Your task to perform on an android device: Go to internet settings Image 0: 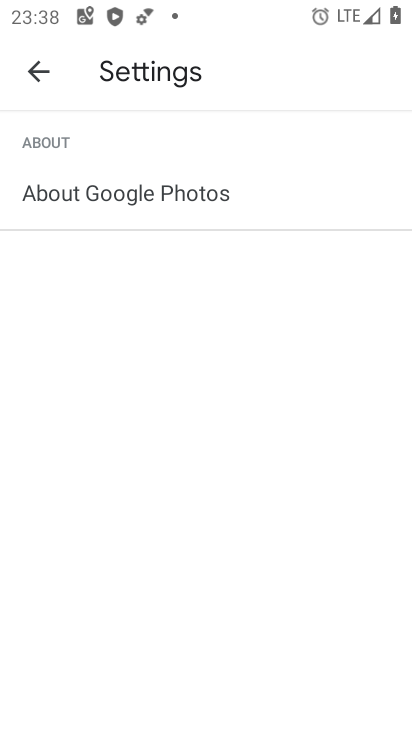
Step 0: press home button
Your task to perform on an android device: Go to internet settings Image 1: 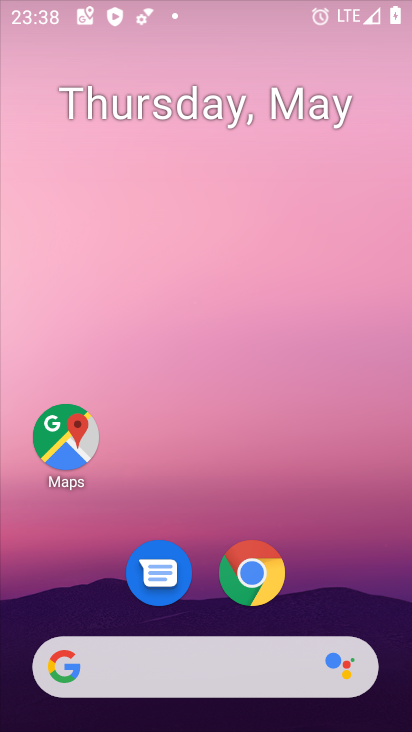
Step 1: drag from (197, 596) to (208, 154)
Your task to perform on an android device: Go to internet settings Image 2: 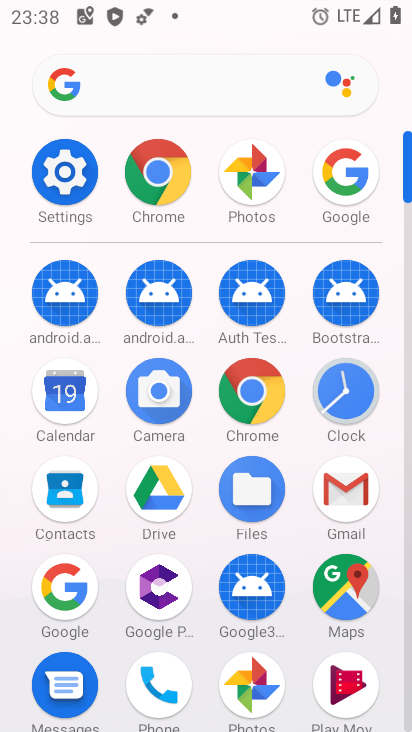
Step 2: click (80, 183)
Your task to perform on an android device: Go to internet settings Image 3: 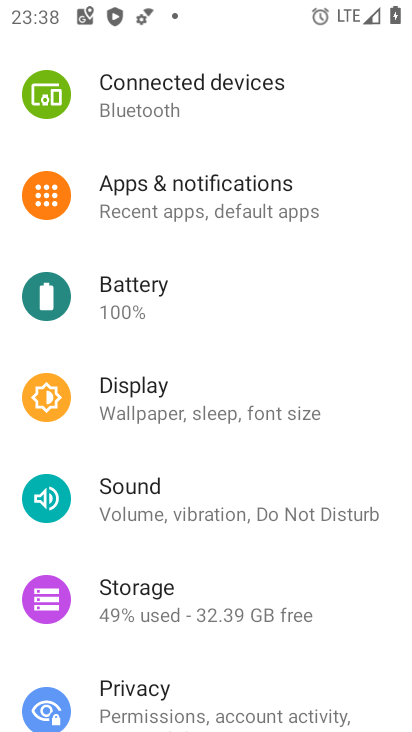
Step 3: drag from (190, 145) to (194, 590)
Your task to perform on an android device: Go to internet settings Image 4: 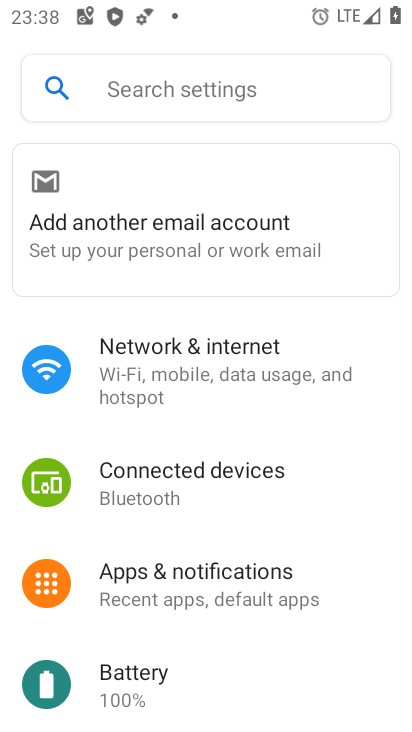
Step 4: click (189, 375)
Your task to perform on an android device: Go to internet settings Image 5: 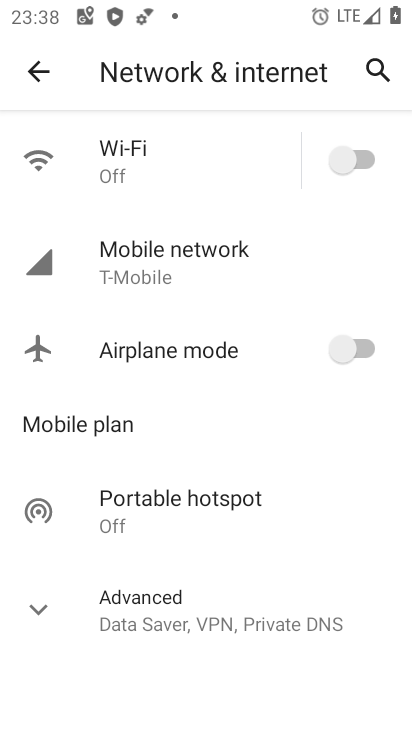
Step 5: click (176, 266)
Your task to perform on an android device: Go to internet settings Image 6: 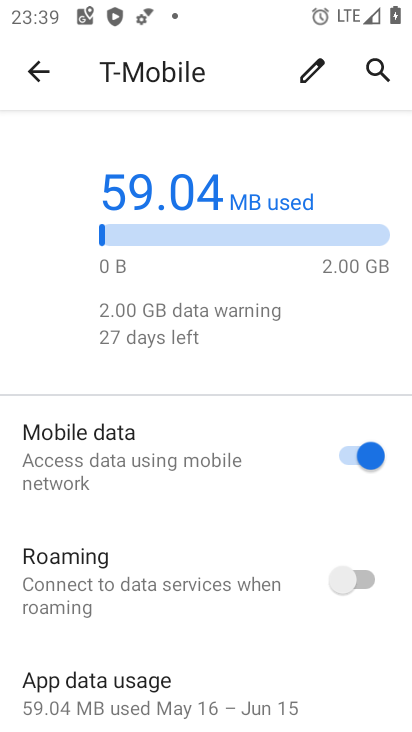
Step 6: task complete